Your task to perform on an android device: turn on location history Image 0: 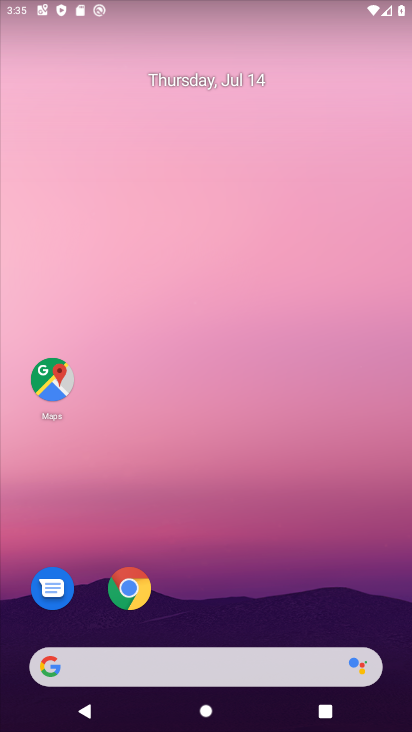
Step 0: drag from (224, 633) to (305, 78)
Your task to perform on an android device: turn on location history Image 1: 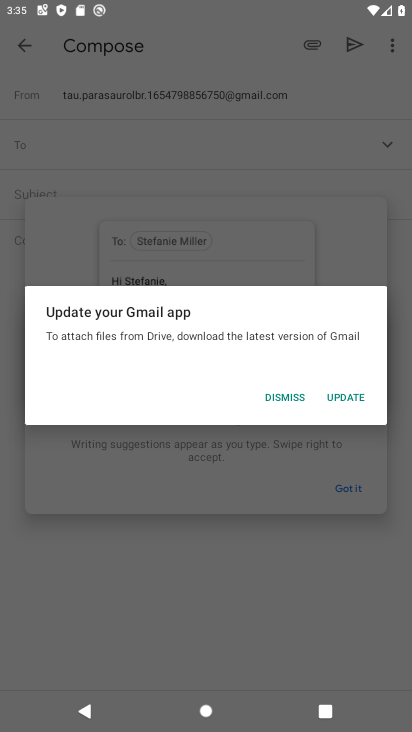
Step 1: press home button
Your task to perform on an android device: turn on location history Image 2: 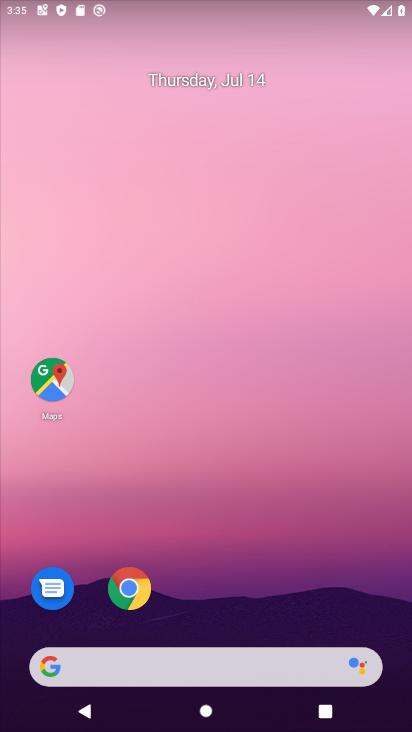
Step 2: drag from (254, 590) to (319, 132)
Your task to perform on an android device: turn on location history Image 3: 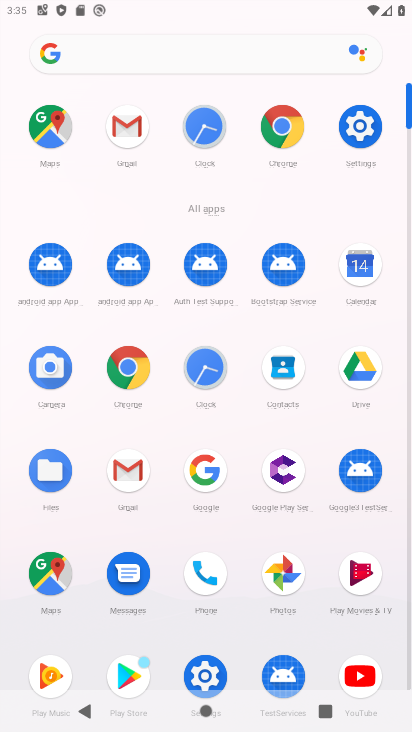
Step 3: click (350, 135)
Your task to perform on an android device: turn on location history Image 4: 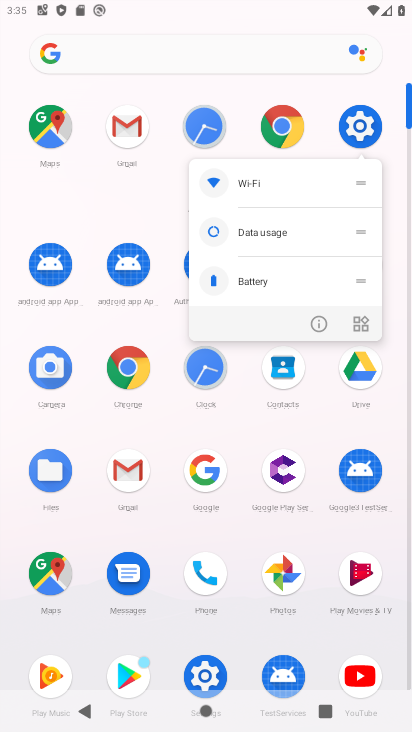
Step 4: click (357, 136)
Your task to perform on an android device: turn on location history Image 5: 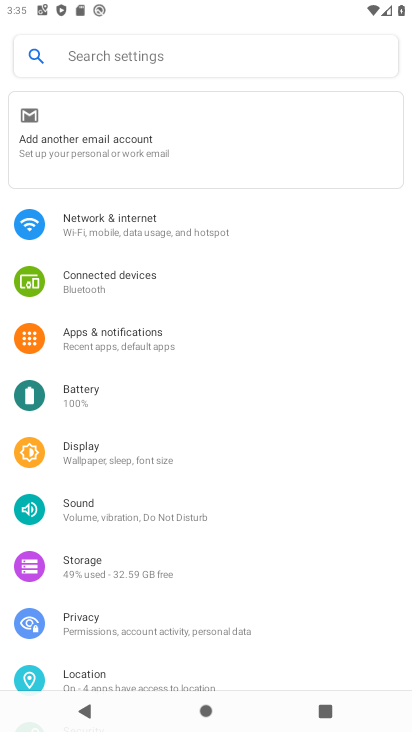
Step 5: drag from (91, 644) to (141, 279)
Your task to perform on an android device: turn on location history Image 6: 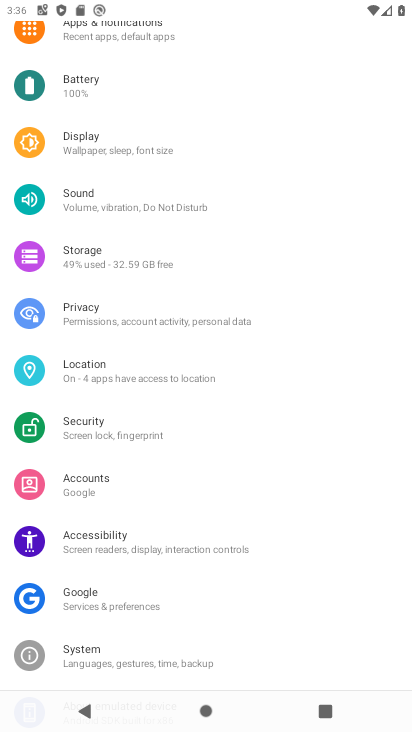
Step 6: click (107, 366)
Your task to perform on an android device: turn on location history Image 7: 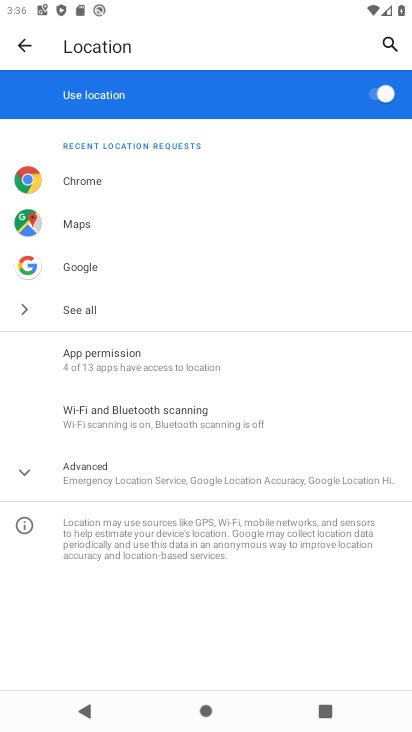
Step 7: task complete